Your task to perform on an android device: turn pop-ups on in chrome Image 0: 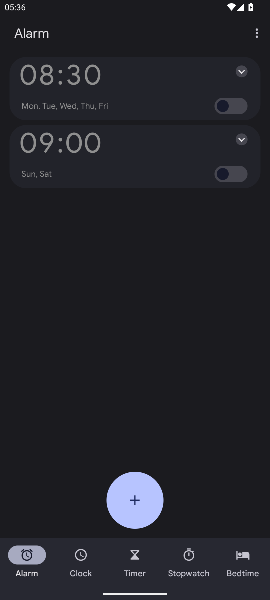
Step 0: press home button
Your task to perform on an android device: turn pop-ups on in chrome Image 1: 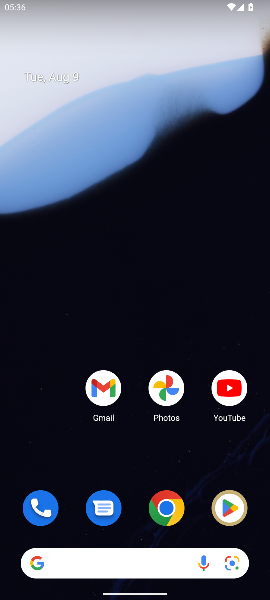
Step 1: click (171, 506)
Your task to perform on an android device: turn pop-ups on in chrome Image 2: 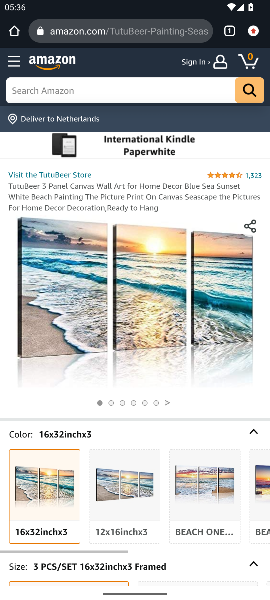
Step 2: click (256, 33)
Your task to perform on an android device: turn pop-ups on in chrome Image 3: 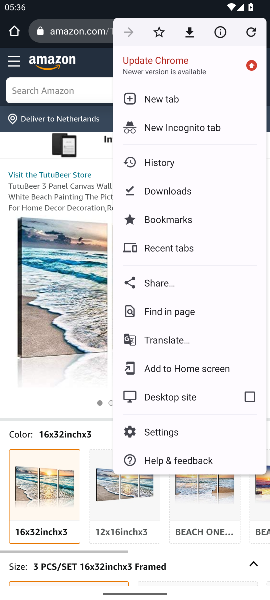
Step 3: click (172, 434)
Your task to perform on an android device: turn pop-ups on in chrome Image 4: 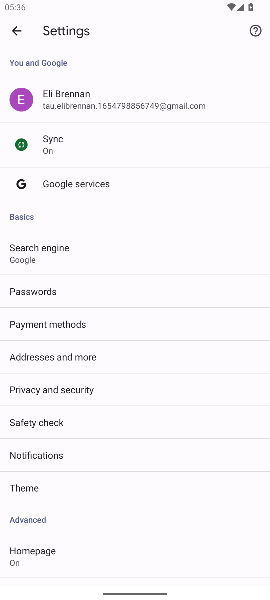
Step 4: drag from (105, 486) to (96, 56)
Your task to perform on an android device: turn pop-ups on in chrome Image 5: 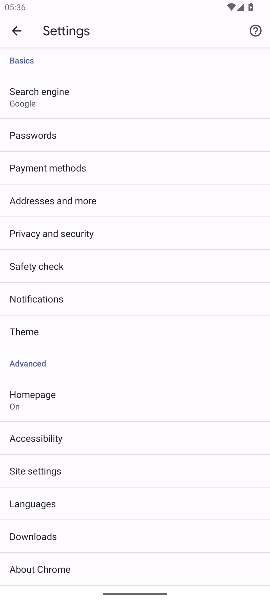
Step 5: click (91, 459)
Your task to perform on an android device: turn pop-ups on in chrome Image 6: 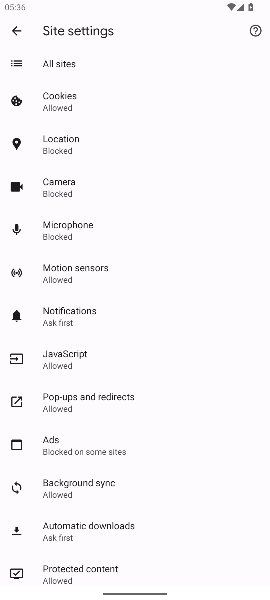
Step 6: click (104, 392)
Your task to perform on an android device: turn pop-ups on in chrome Image 7: 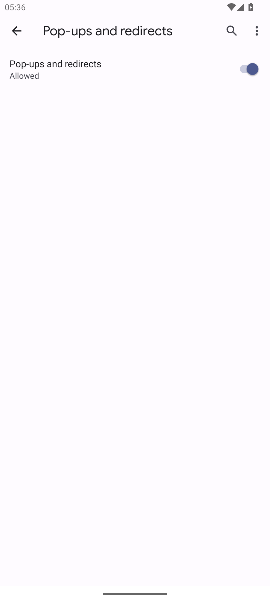
Step 7: task complete